Your task to perform on an android device: change the clock display to digital Image 0: 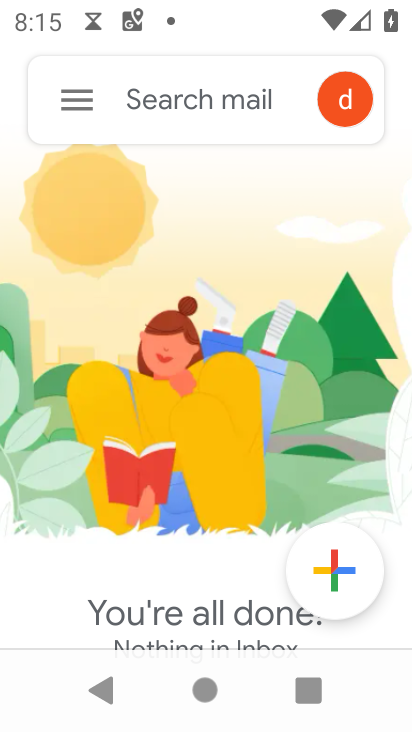
Step 0: press home button
Your task to perform on an android device: change the clock display to digital Image 1: 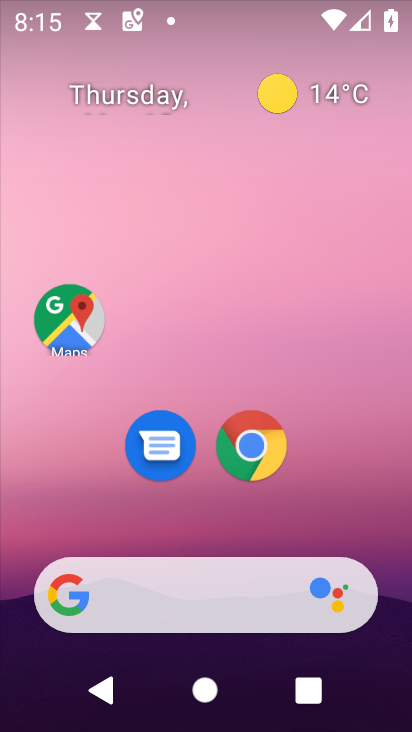
Step 1: drag from (232, 708) to (230, 114)
Your task to perform on an android device: change the clock display to digital Image 2: 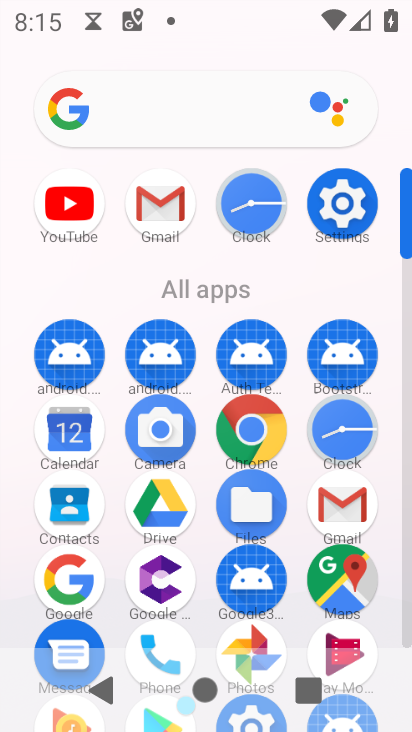
Step 2: click (338, 428)
Your task to perform on an android device: change the clock display to digital Image 3: 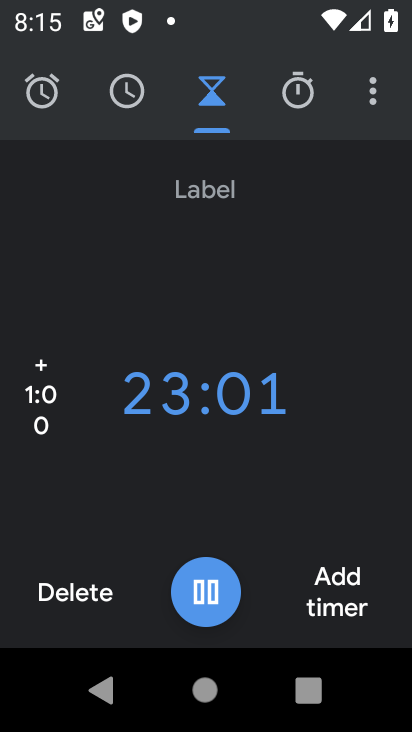
Step 3: click (373, 101)
Your task to perform on an android device: change the clock display to digital Image 4: 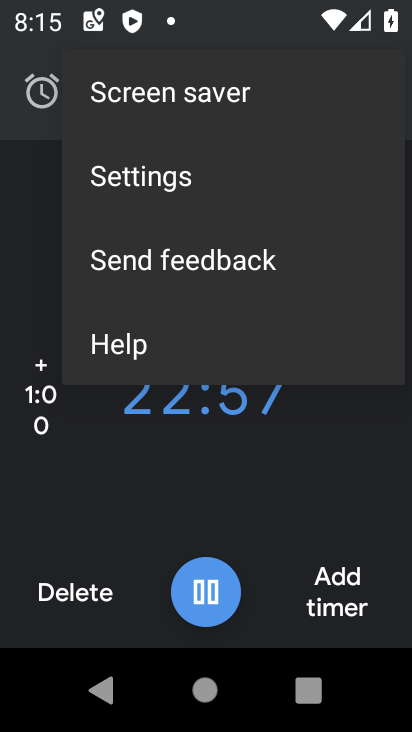
Step 4: click (160, 169)
Your task to perform on an android device: change the clock display to digital Image 5: 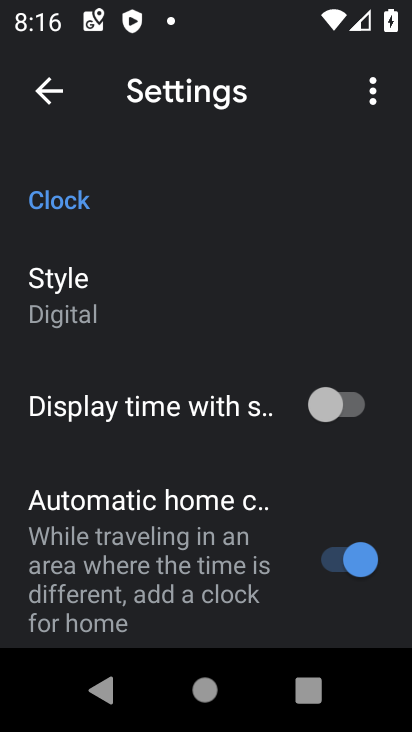
Step 5: task complete